Your task to perform on an android device: create a new album in the google photos Image 0: 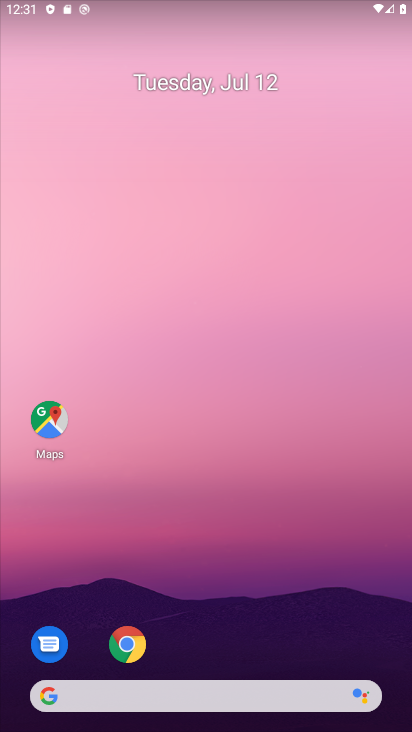
Step 0: drag from (201, 646) to (245, 22)
Your task to perform on an android device: create a new album in the google photos Image 1: 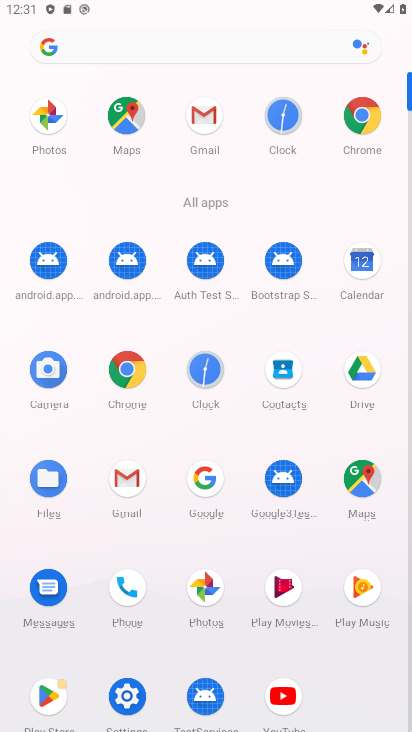
Step 1: click (201, 602)
Your task to perform on an android device: create a new album in the google photos Image 2: 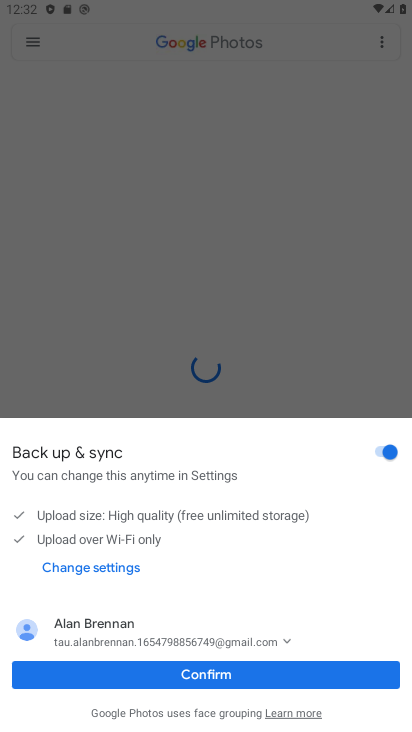
Step 2: click (241, 674)
Your task to perform on an android device: create a new album in the google photos Image 3: 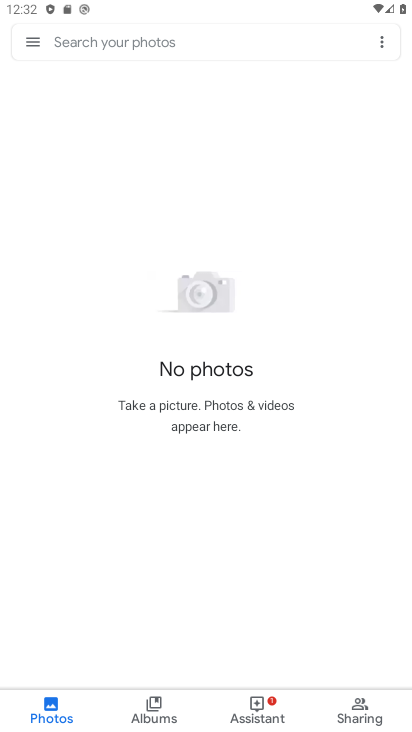
Step 3: click (157, 701)
Your task to perform on an android device: create a new album in the google photos Image 4: 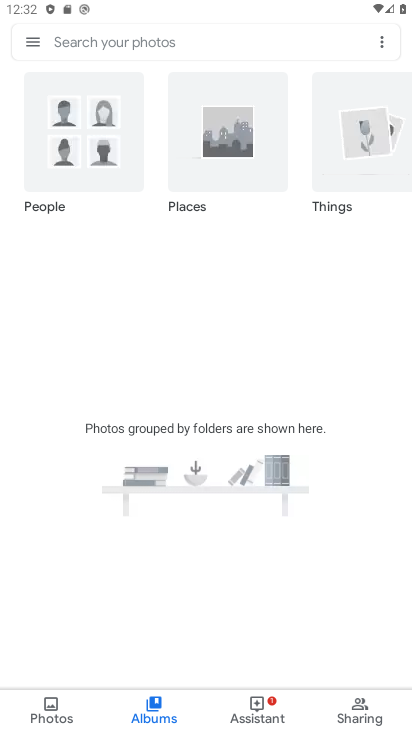
Step 4: task complete